Your task to perform on an android device: turn smart compose on in the gmail app Image 0: 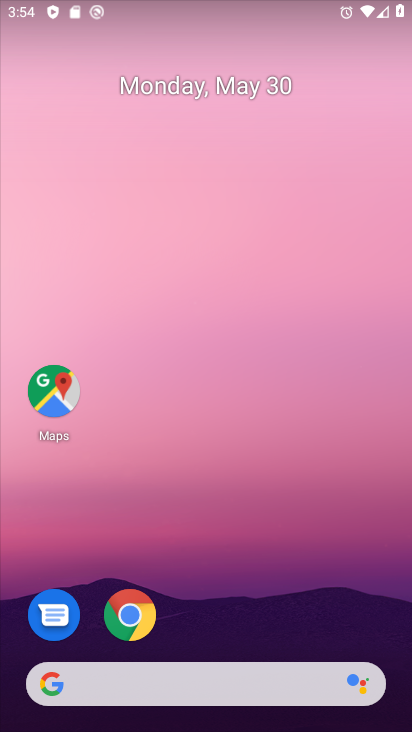
Step 0: drag from (226, 590) to (242, 48)
Your task to perform on an android device: turn smart compose on in the gmail app Image 1: 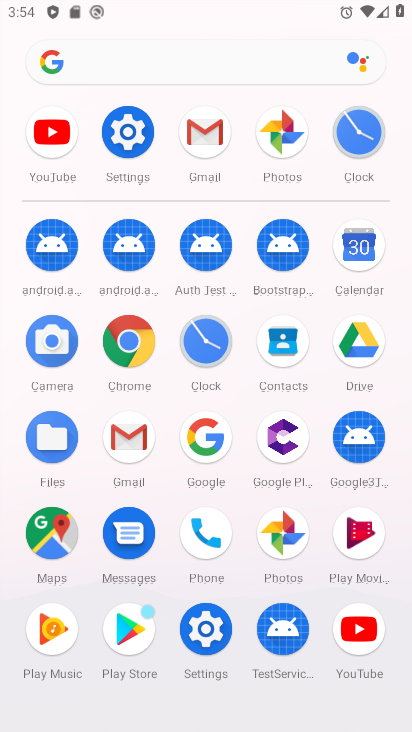
Step 1: click (210, 132)
Your task to perform on an android device: turn smart compose on in the gmail app Image 2: 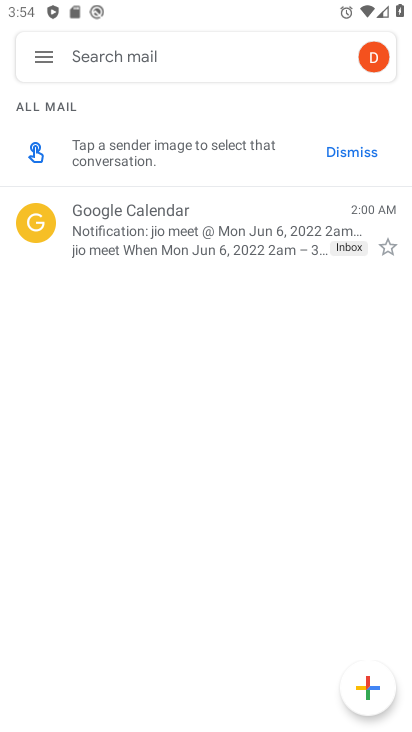
Step 2: click (44, 52)
Your task to perform on an android device: turn smart compose on in the gmail app Image 3: 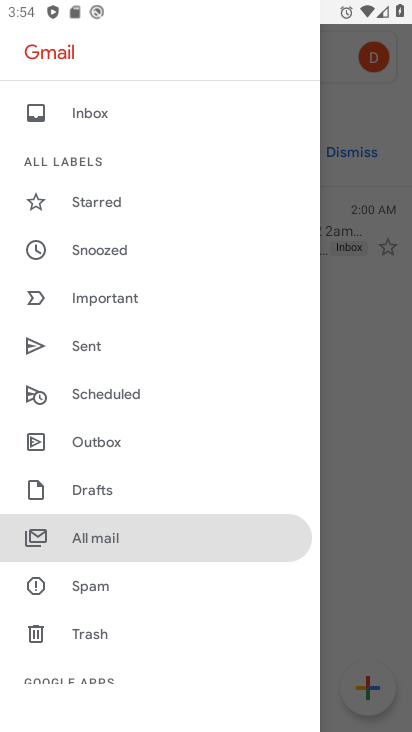
Step 3: drag from (158, 587) to (172, 326)
Your task to perform on an android device: turn smart compose on in the gmail app Image 4: 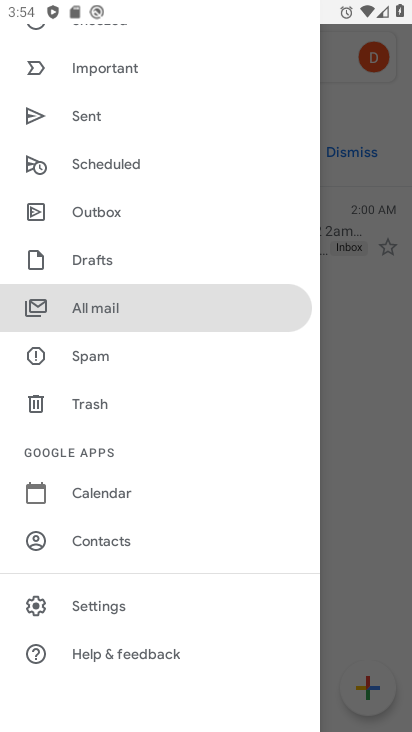
Step 4: click (129, 600)
Your task to perform on an android device: turn smart compose on in the gmail app Image 5: 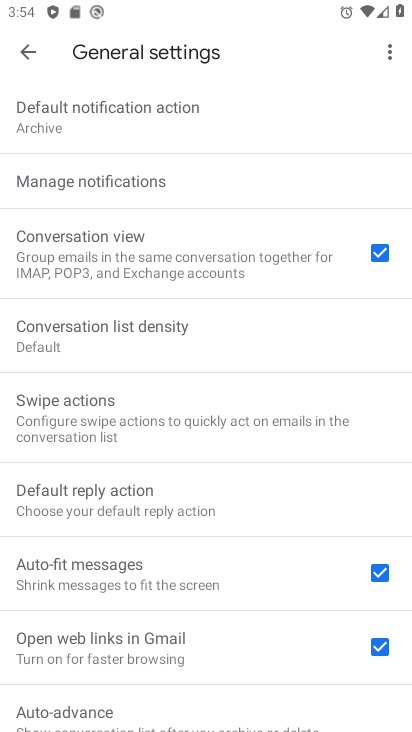
Step 5: drag from (270, 557) to (241, 731)
Your task to perform on an android device: turn smart compose on in the gmail app Image 6: 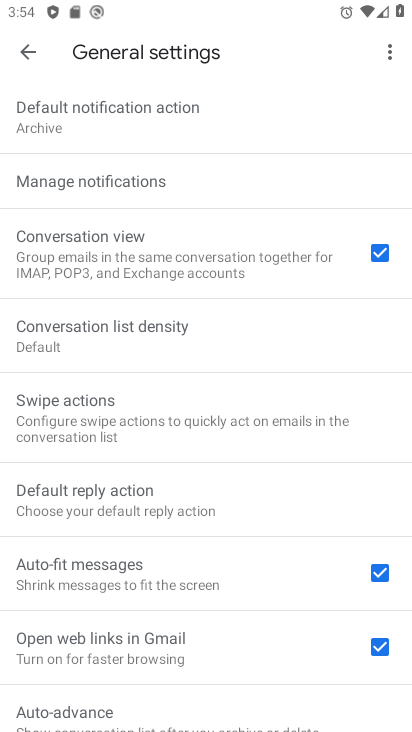
Step 6: click (31, 41)
Your task to perform on an android device: turn smart compose on in the gmail app Image 7: 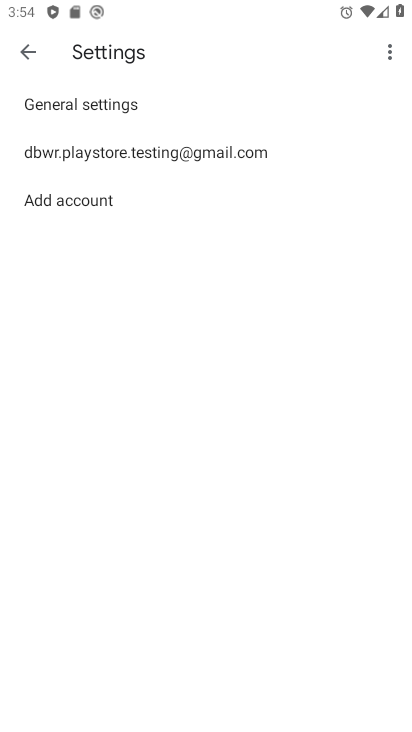
Step 7: click (92, 148)
Your task to perform on an android device: turn smart compose on in the gmail app Image 8: 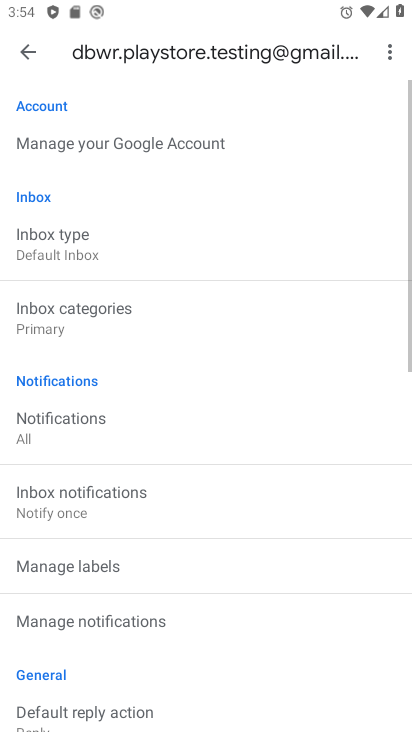
Step 8: task complete